Your task to perform on an android device: Go to location settings Image 0: 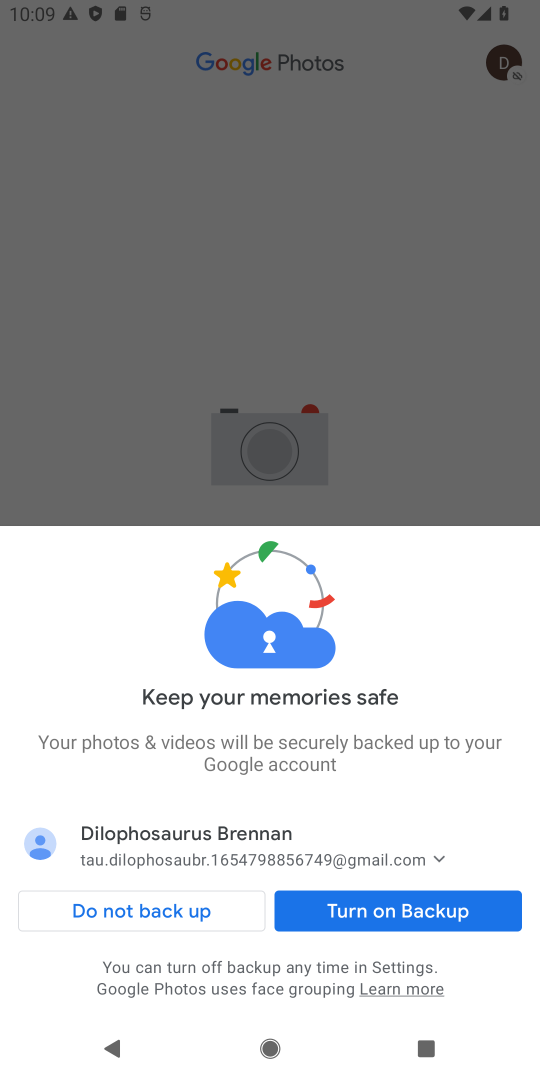
Step 0: click (359, 898)
Your task to perform on an android device: Go to location settings Image 1: 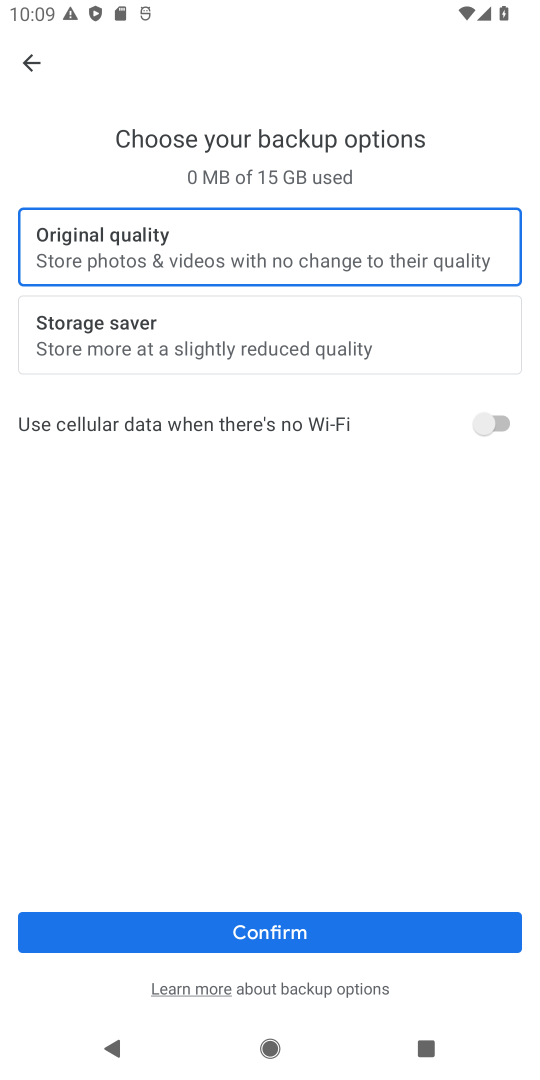
Step 1: click (281, 923)
Your task to perform on an android device: Go to location settings Image 2: 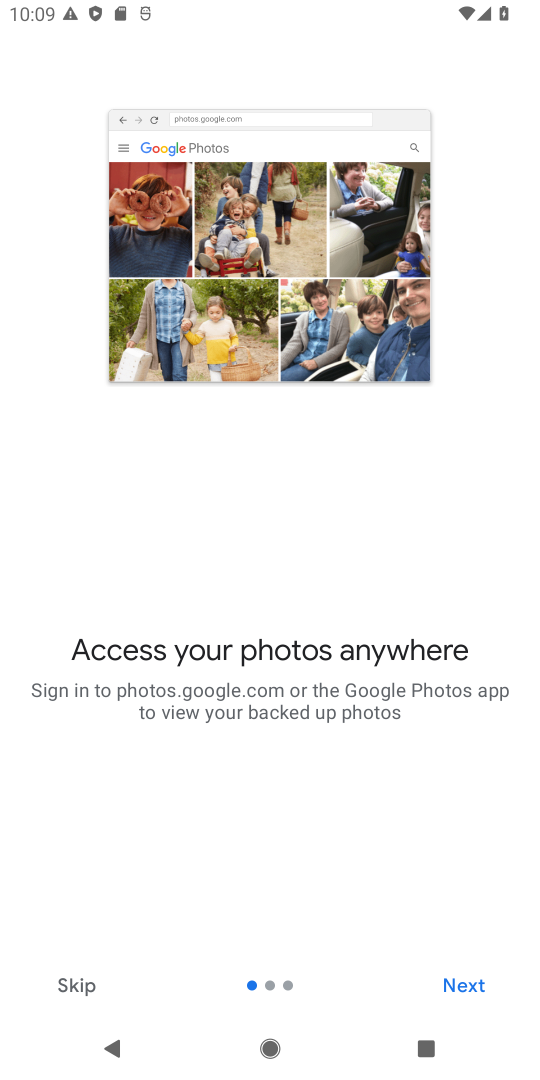
Step 2: click (463, 978)
Your task to perform on an android device: Go to location settings Image 3: 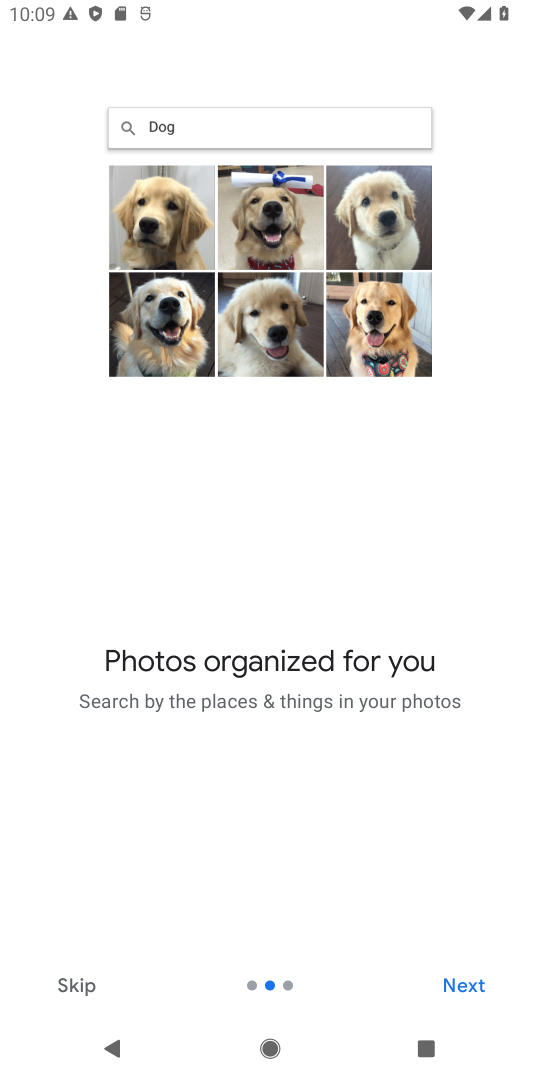
Step 3: click (463, 978)
Your task to perform on an android device: Go to location settings Image 4: 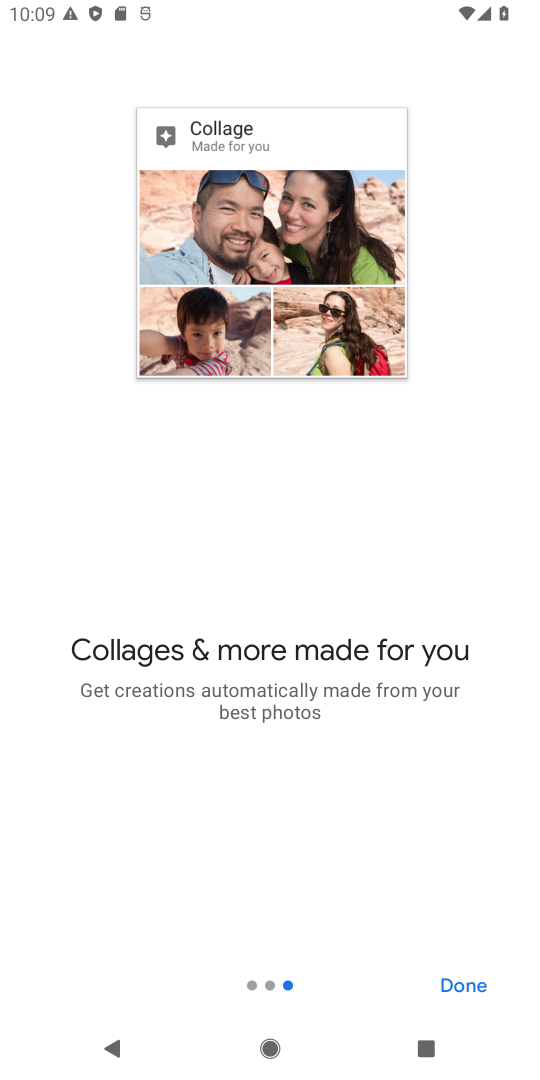
Step 4: click (463, 978)
Your task to perform on an android device: Go to location settings Image 5: 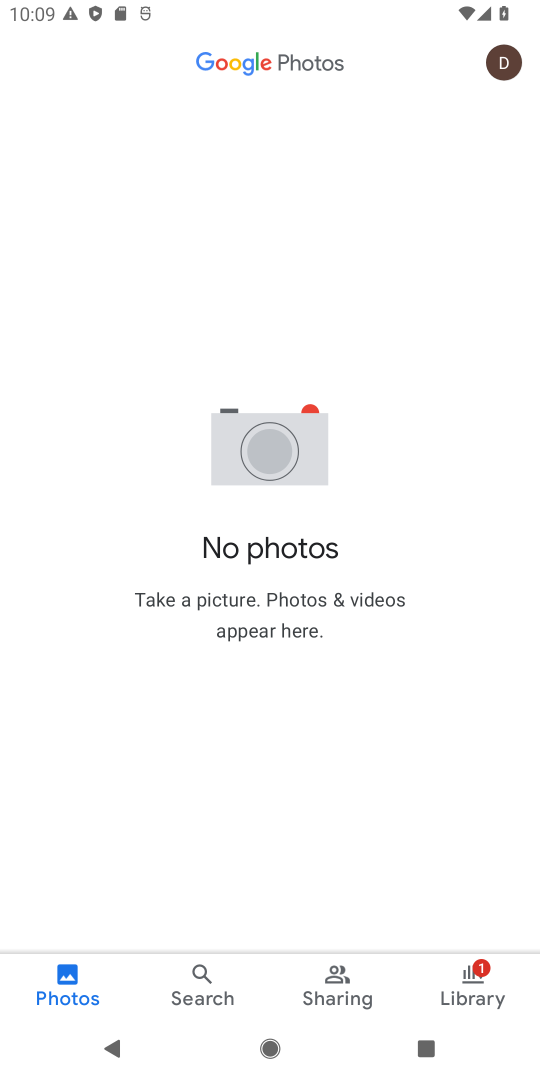
Step 5: press home button
Your task to perform on an android device: Go to location settings Image 6: 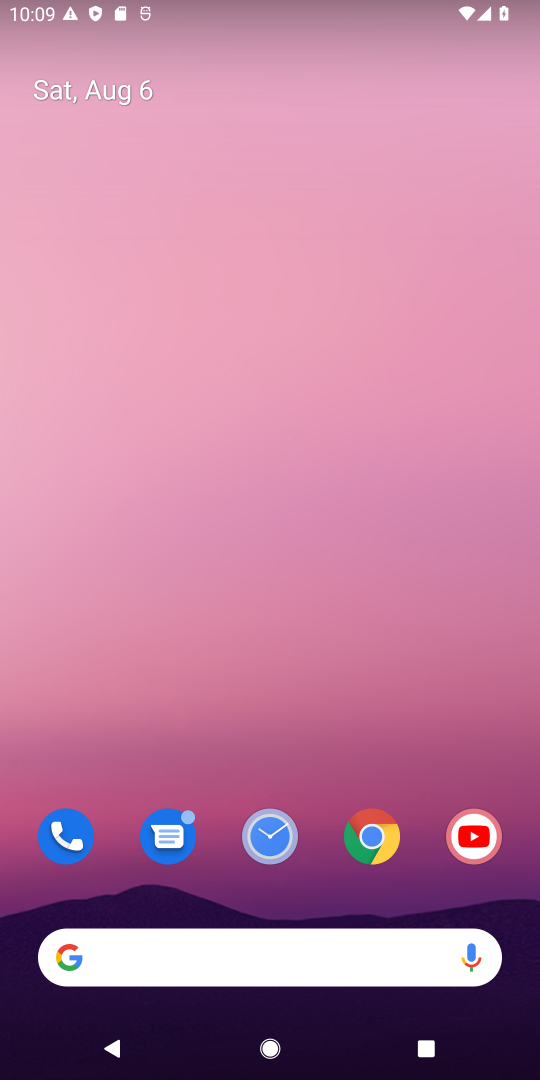
Step 6: click (332, 404)
Your task to perform on an android device: Go to location settings Image 7: 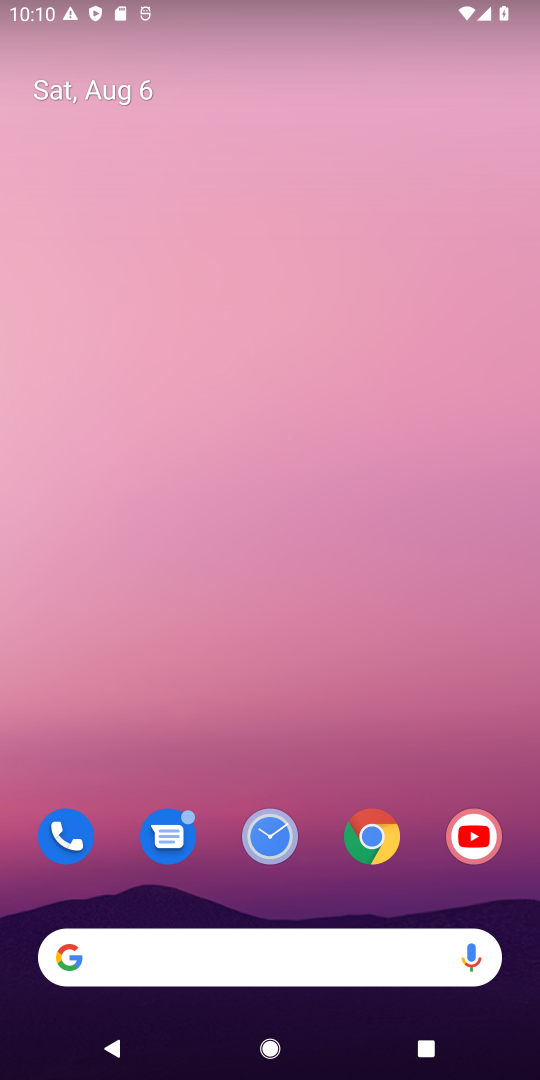
Step 7: drag from (245, 709) to (241, 352)
Your task to perform on an android device: Go to location settings Image 8: 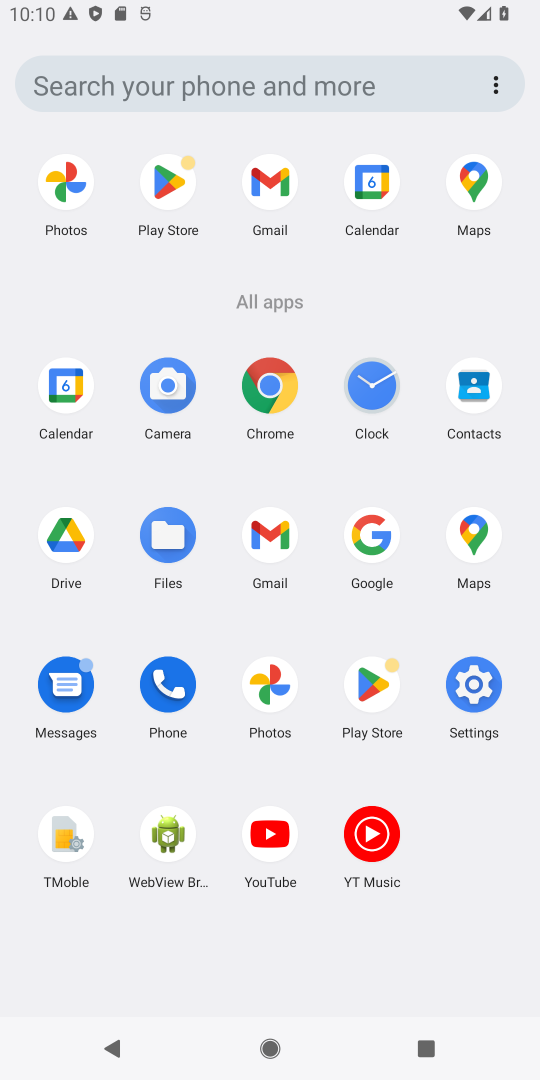
Step 8: click (487, 704)
Your task to perform on an android device: Go to location settings Image 9: 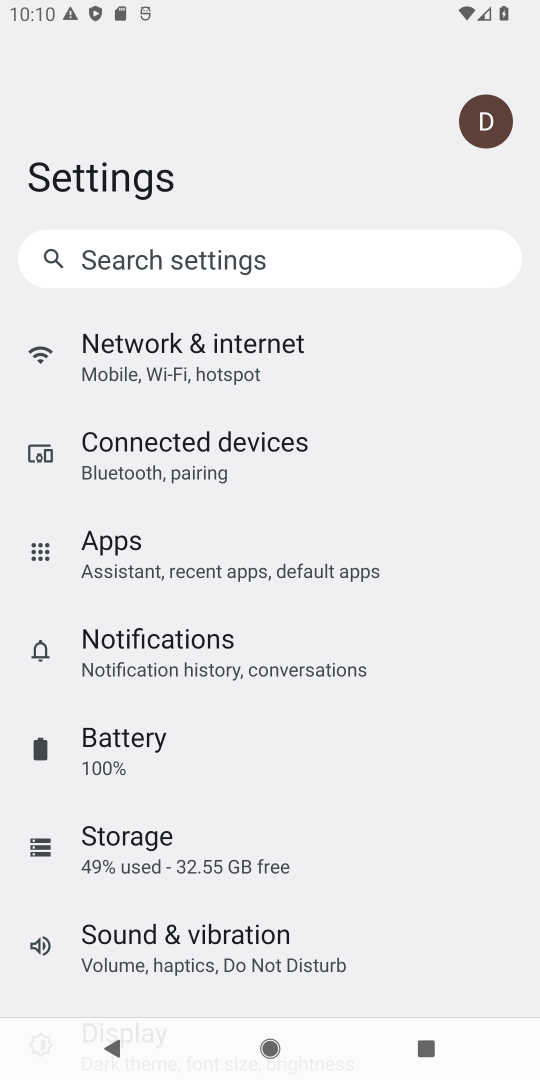
Step 9: drag from (159, 701) to (167, 403)
Your task to perform on an android device: Go to location settings Image 10: 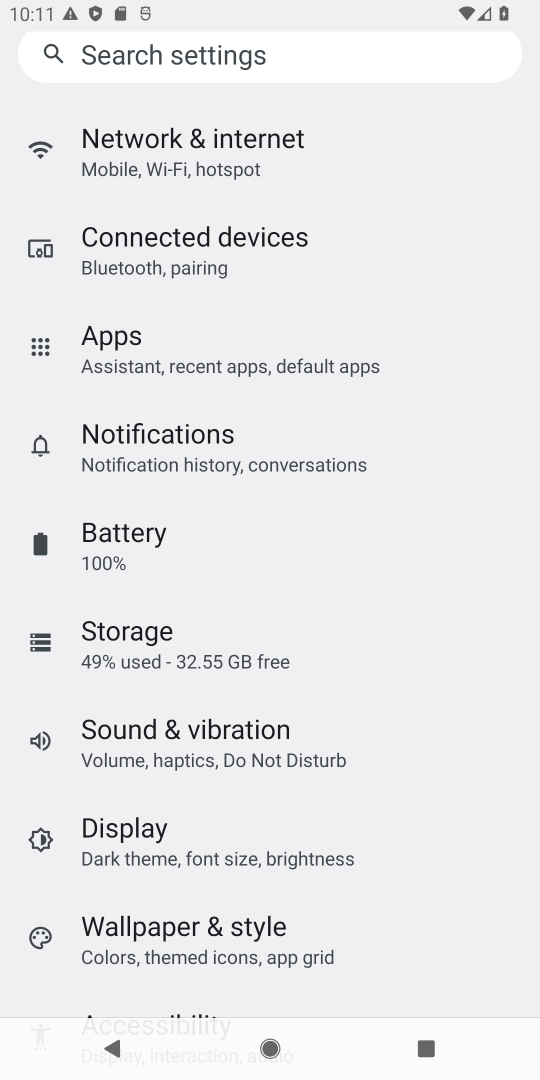
Step 10: drag from (237, 739) to (269, 387)
Your task to perform on an android device: Go to location settings Image 11: 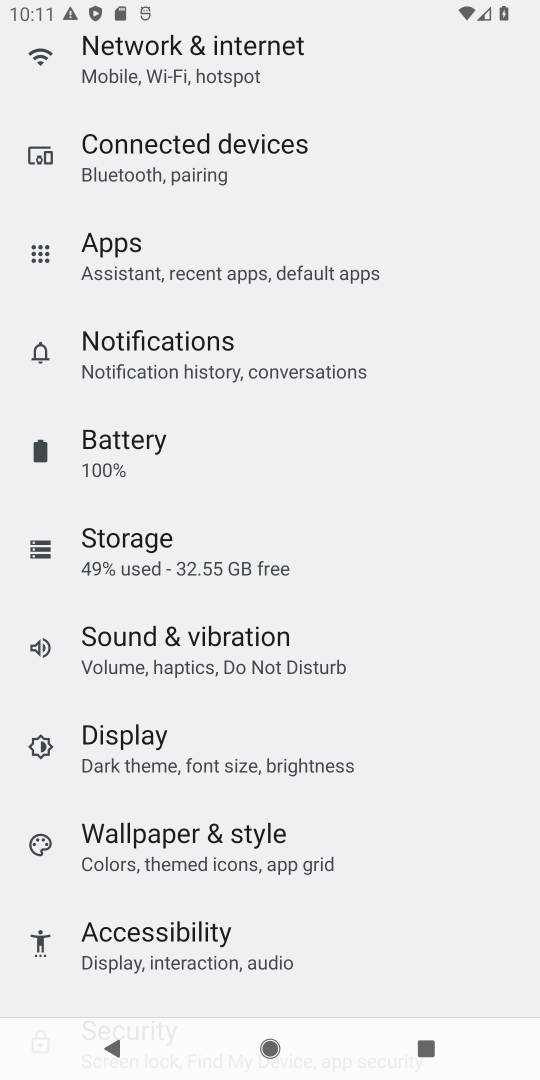
Step 11: drag from (258, 738) to (193, 354)
Your task to perform on an android device: Go to location settings Image 12: 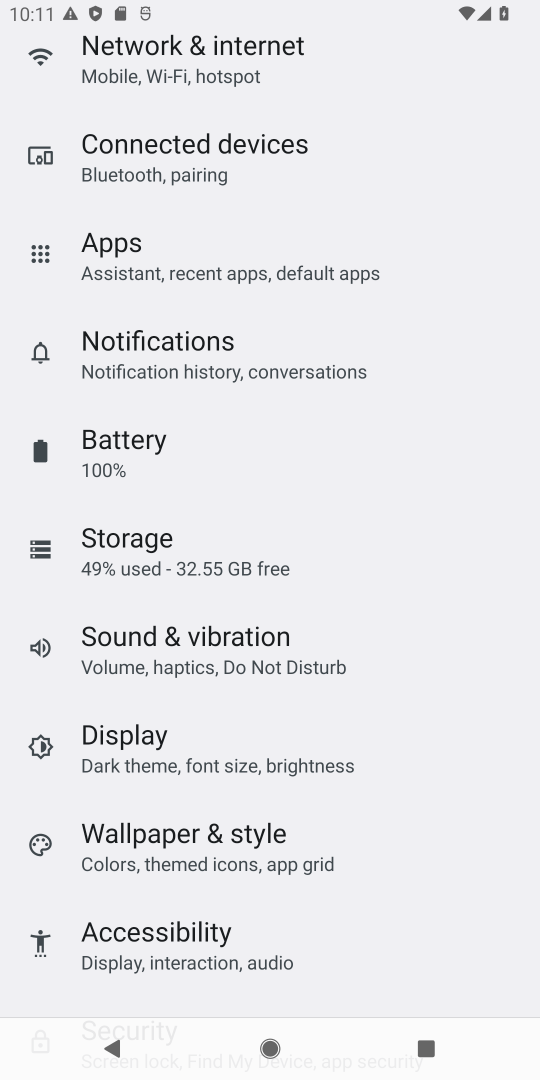
Step 12: drag from (227, 748) to (201, 446)
Your task to perform on an android device: Go to location settings Image 13: 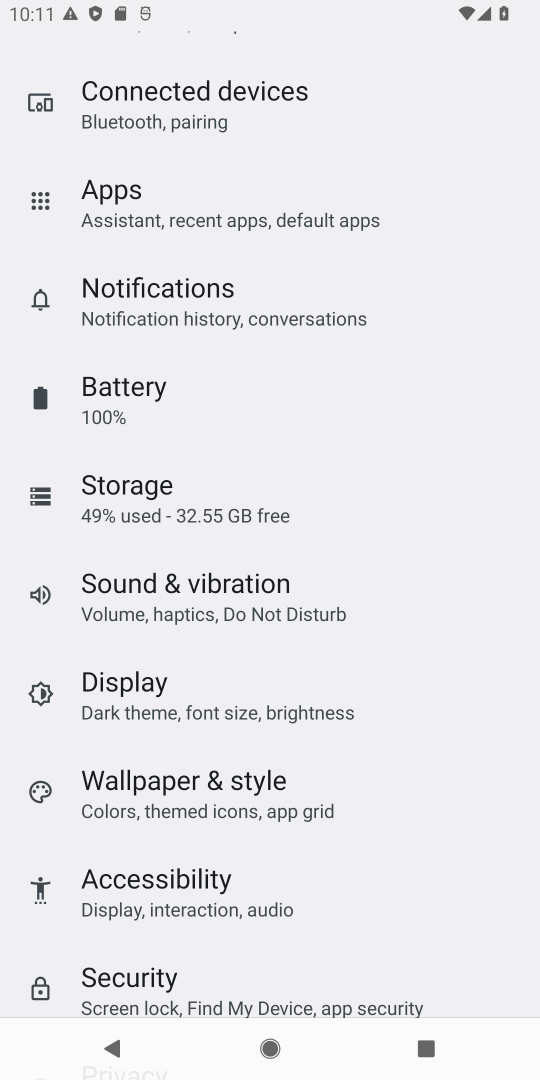
Step 13: drag from (189, 775) to (189, 492)
Your task to perform on an android device: Go to location settings Image 14: 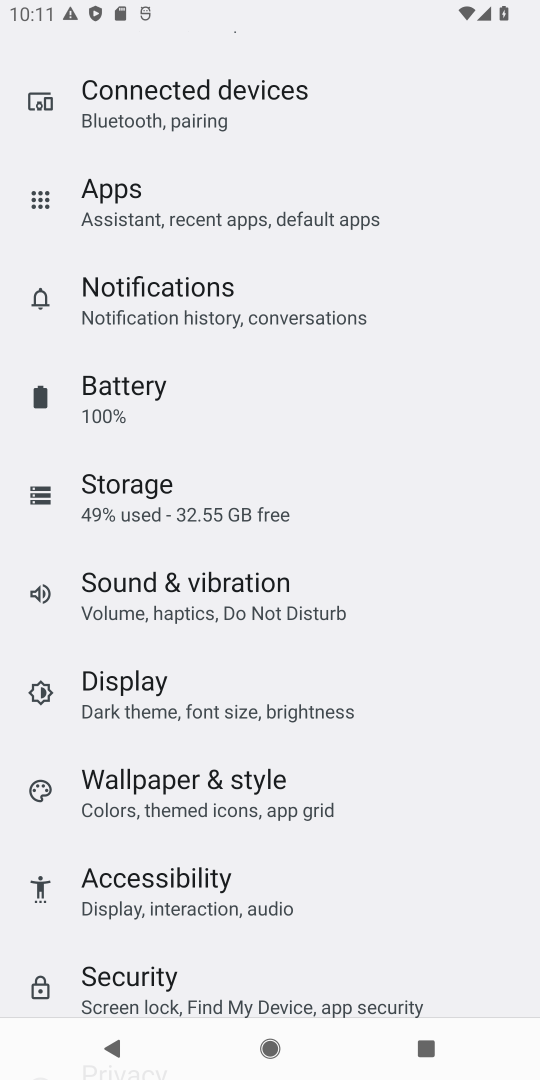
Step 14: drag from (279, 823) to (284, 356)
Your task to perform on an android device: Go to location settings Image 15: 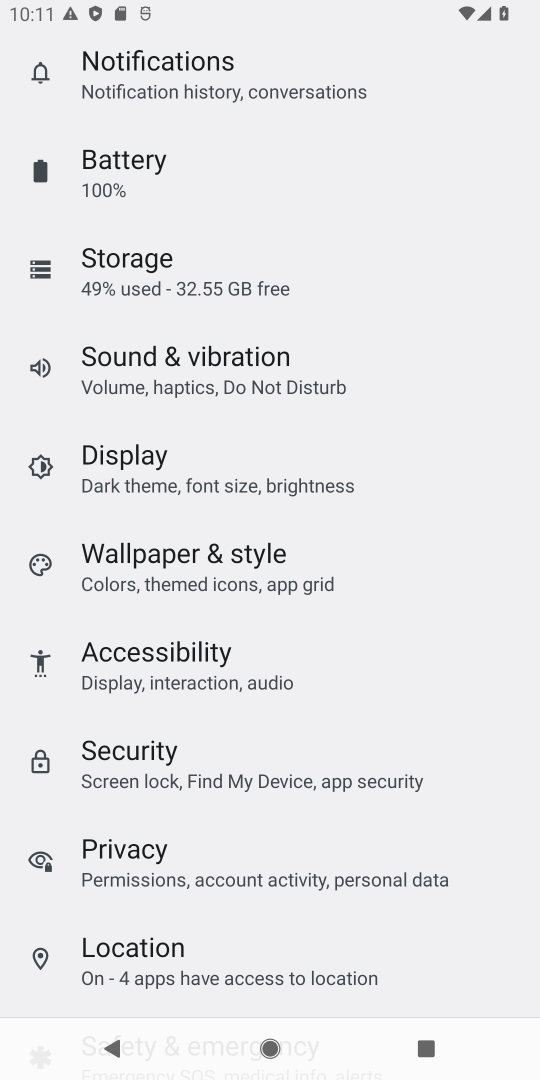
Step 15: click (147, 970)
Your task to perform on an android device: Go to location settings Image 16: 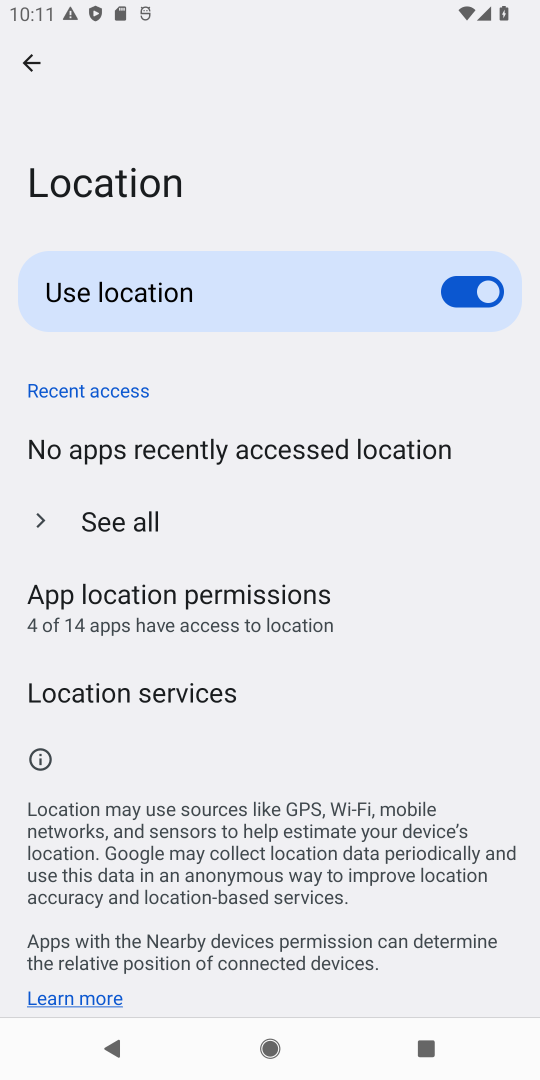
Step 16: task complete